Your task to perform on an android device: turn off improve location accuracy Image 0: 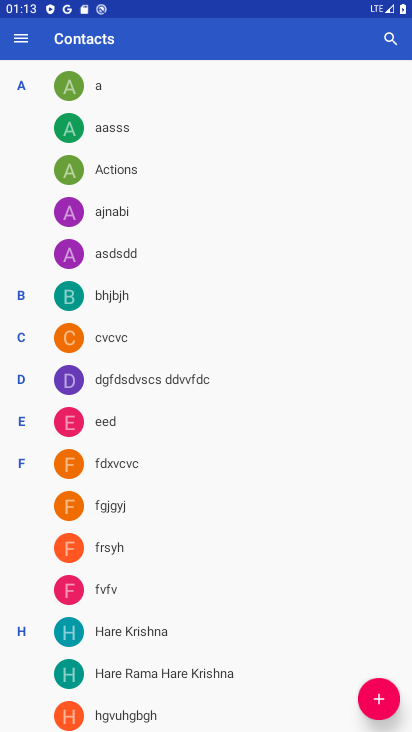
Step 0: press home button
Your task to perform on an android device: turn off improve location accuracy Image 1: 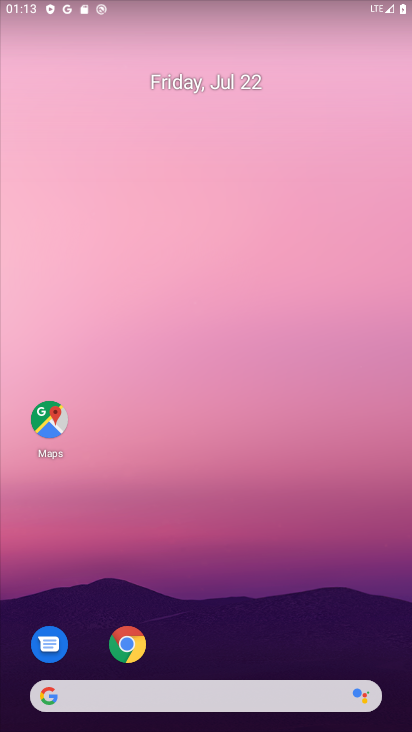
Step 1: drag from (123, 680) to (255, 32)
Your task to perform on an android device: turn off improve location accuracy Image 2: 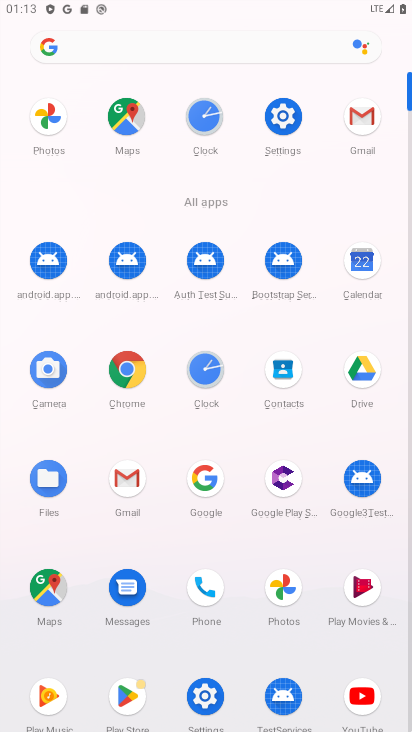
Step 2: click (284, 113)
Your task to perform on an android device: turn off improve location accuracy Image 3: 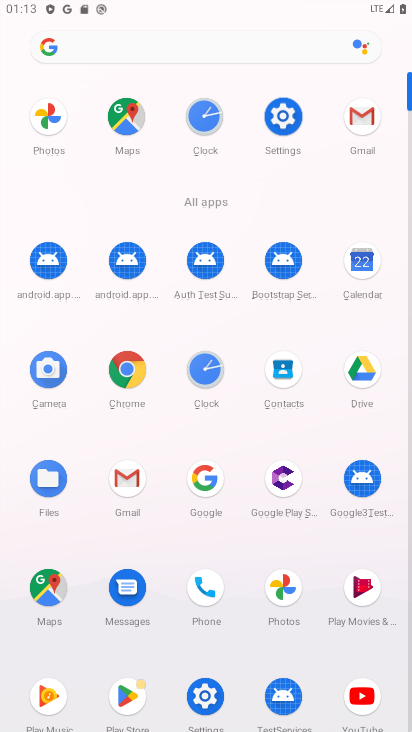
Step 3: click (284, 113)
Your task to perform on an android device: turn off improve location accuracy Image 4: 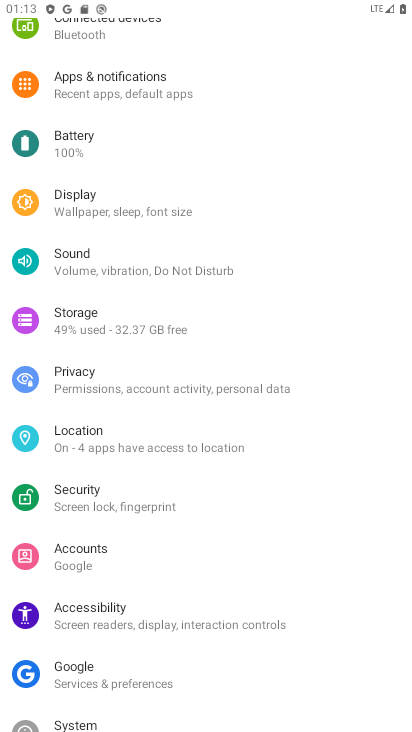
Step 4: click (128, 437)
Your task to perform on an android device: turn off improve location accuracy Image 5: 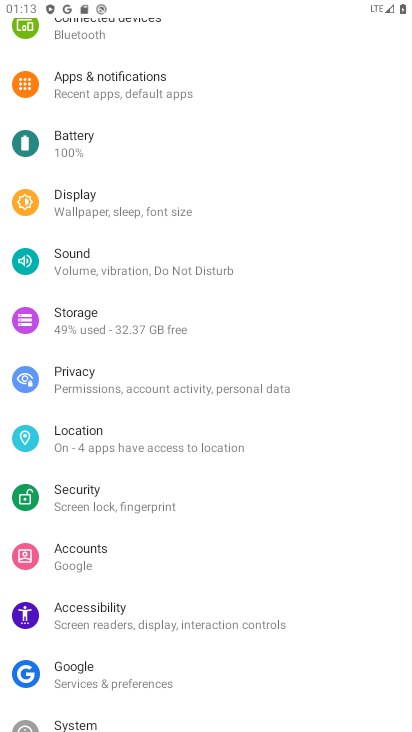
Step 5: click (129, 431)
Your task to perform on an android device: turn off improve location accuracy Image 6: 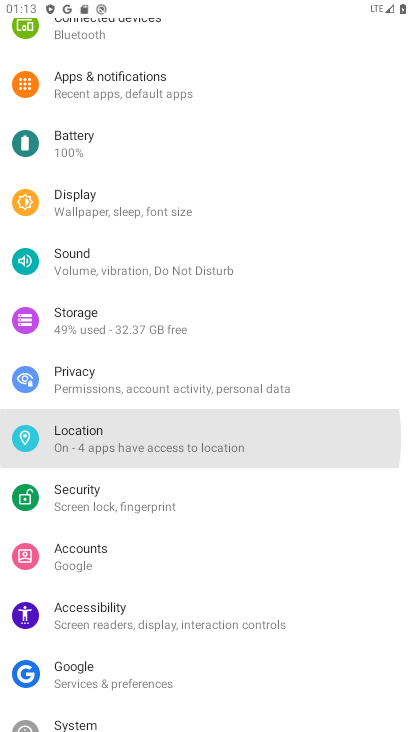
Step 6: click (129, 431)
Your task to perform on an android device: turn off improve location accuracy Image 7: 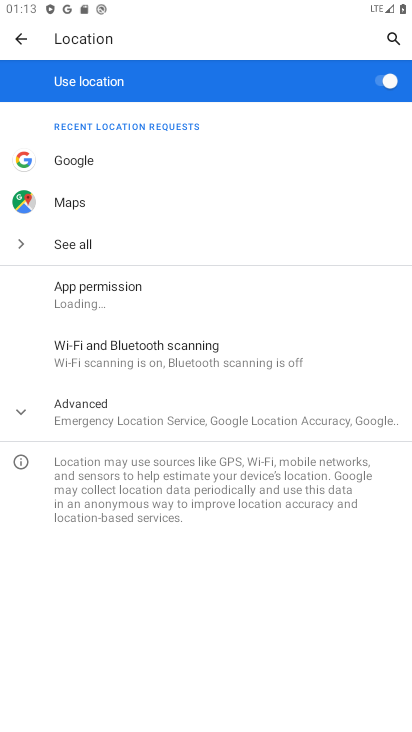
Step 7: click (183, 415)
Your task to perform on an android device: turn off improve location accuracy Image 8: 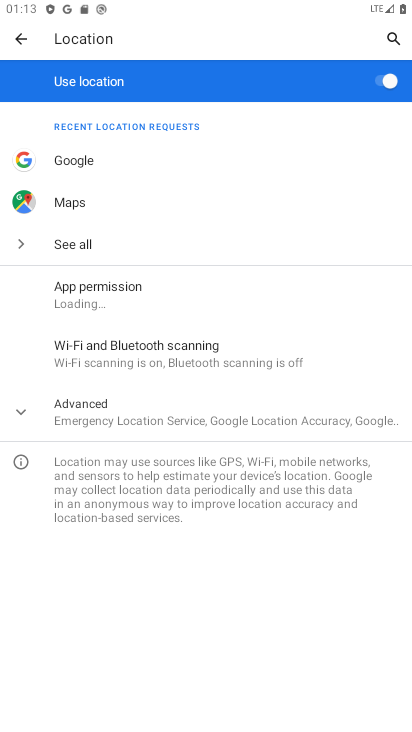
Step 8: click (183, 415)
Your task to perform on an android device: turn off improve location accuracy Image 9: 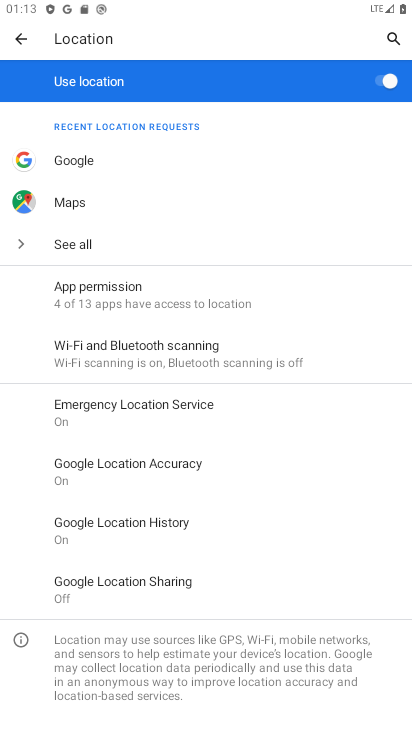
Step 9: click (174, 460)
Your task to perform on an android device: turn off improve location accuracy Image 10: 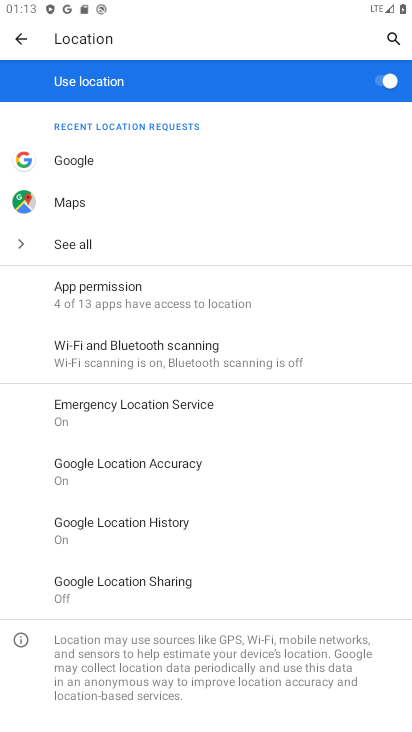
Step 10: click (174, 460)
Your task to perform on an android device: turn off improve location accuracy Image 11: 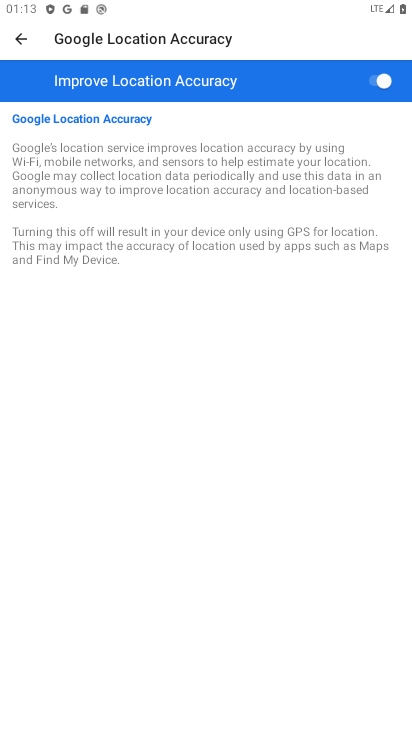
Step 11: click (388, 75)
Your task to perform on an android device: turn off improve location accuracy Image 12: 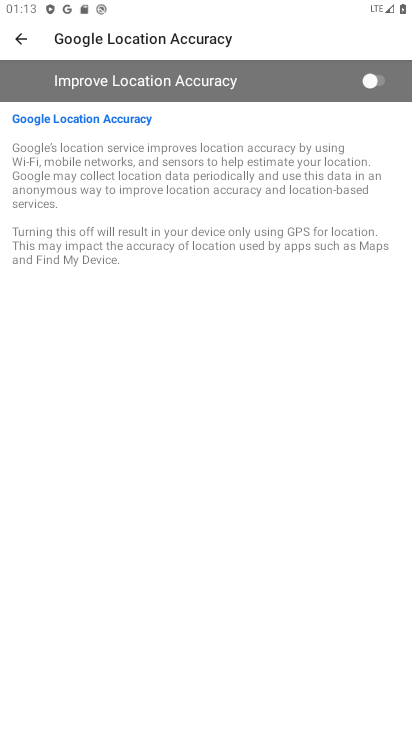
Step 12: task complete